Your task to perform on an android device: Show me popular games on the Play Store Image 0: 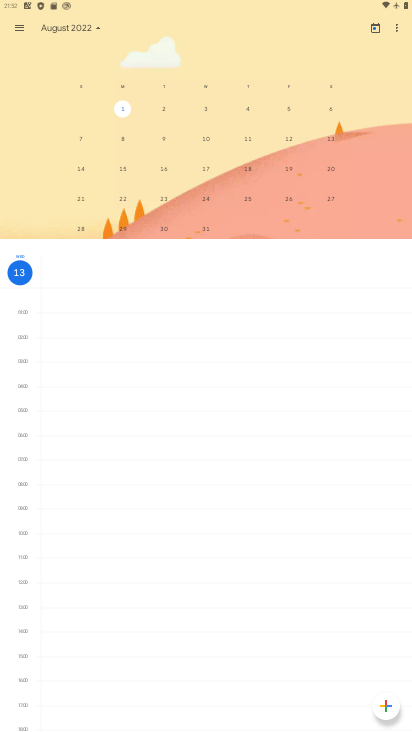
Step 0: press home button
Your task to perform on an android device: Show me popular games on the Play Store Image 1: 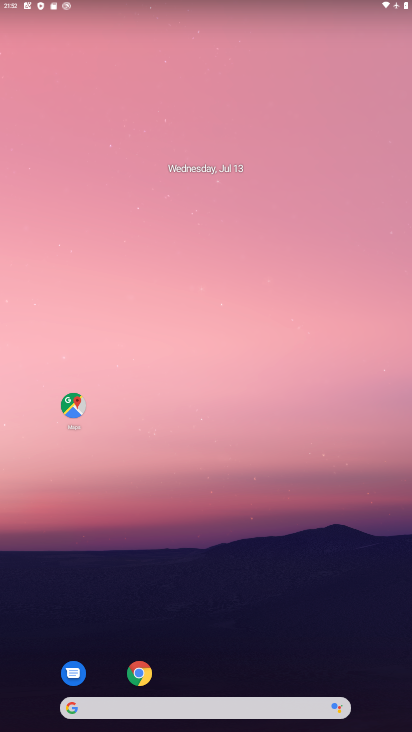
Step 1: drag from (179, 669) to (162, 237)
Your task to perform on an android device: Show me popular games on the Play Store Image 2: 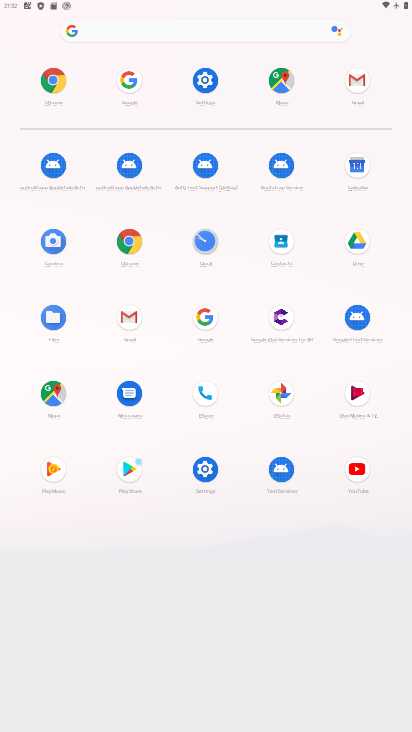
Step 2: click (130, 477)
Your task to perform on an android device: Show me popular games on the Play Store Image 3: 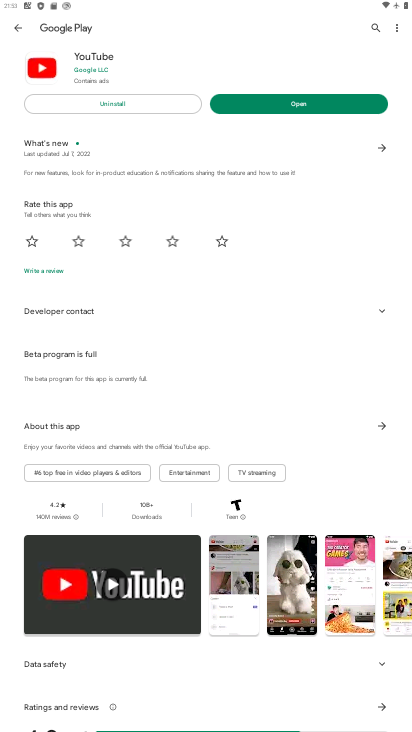
Step 3: click (23, 24)
Your task to perform on an android device: Show me popular games on the Play Store Image 4: 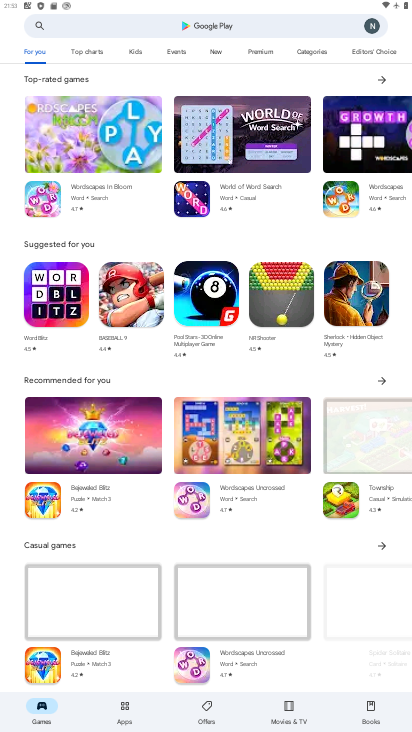
Step 4: click (236, 29)
Your task to perform on an android device: Show me popular games on the Play Store Image 5: 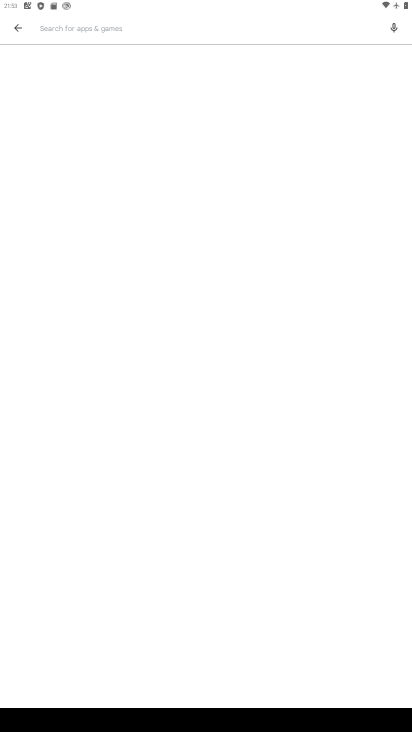
Step 5: click (9, 25)
Your task to perform on an android device: Show me popular games on the Play Store Image 6: 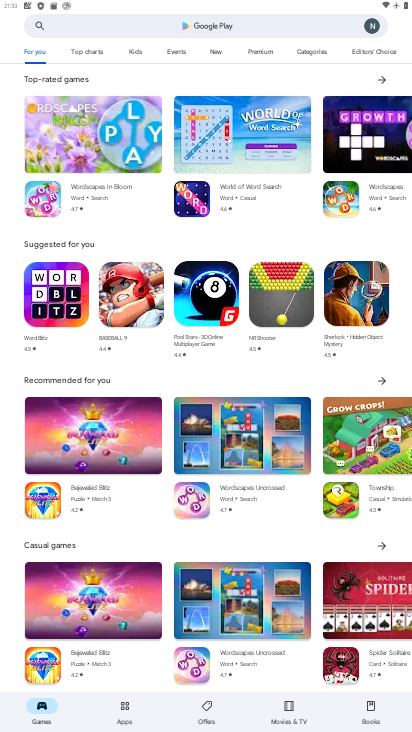
Step 6: click (74, 52)
Your task to perform on an android device: Show me popular games on the Play Store Image 7: 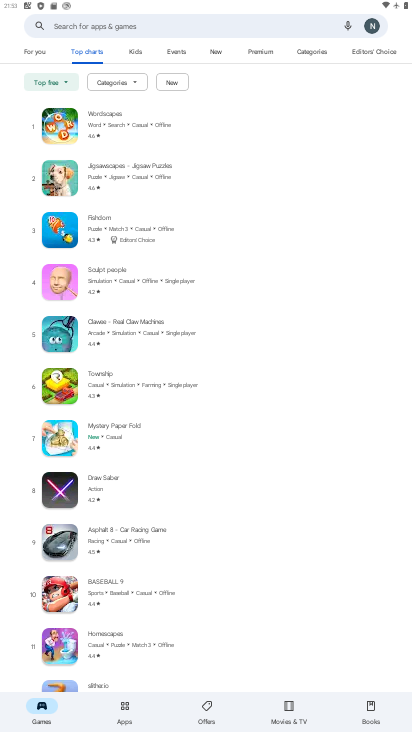
Step 7: task complete